Your task to perform on an android device: check android version Image 0: 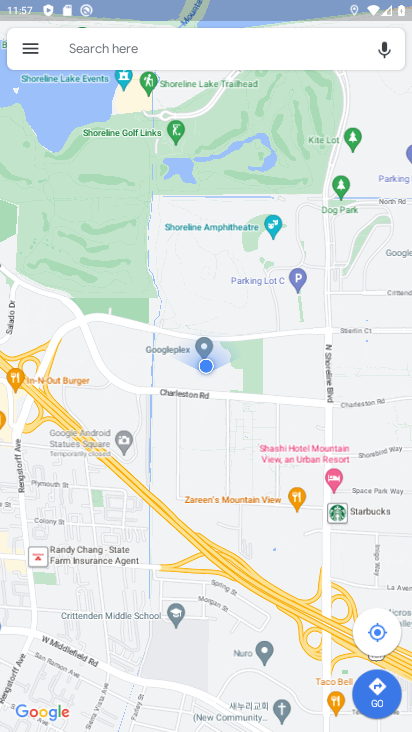
Step 0: press home button
Your task to perform on an android device: check android version Image 1: 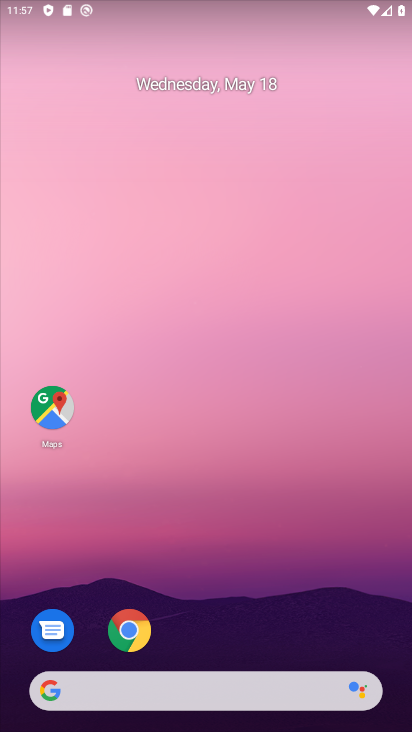
Step 1: drag from (288, 599) to (383, 298)
Your task to perform on an android device: check android version Image 2: 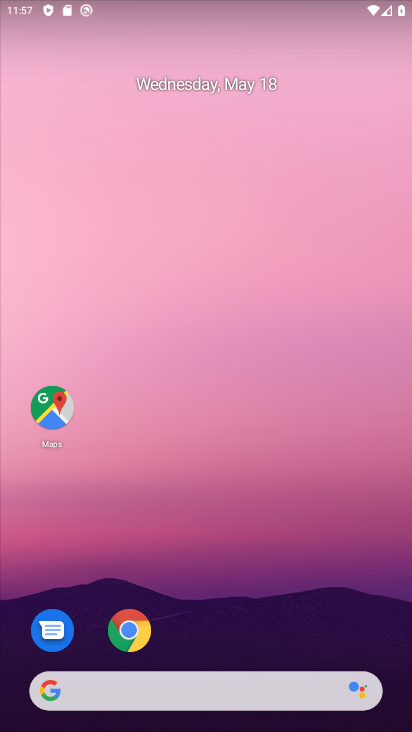
Step 2: drag from (365, 638) to (403, 161)
Your task to perform on an android device: check android version Image 3: 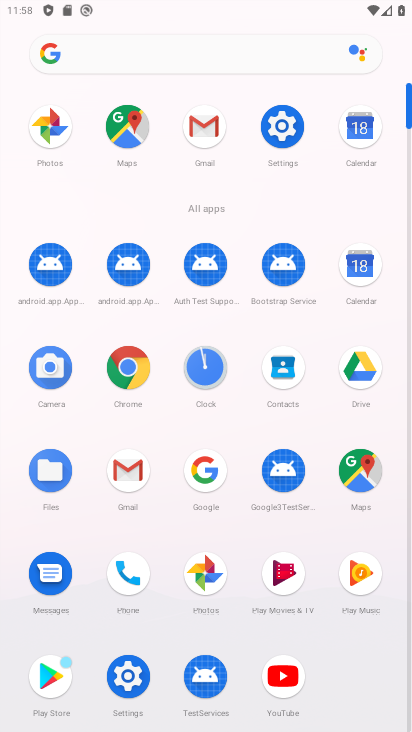
Step 3: click (127, 675)
Your task to perform on an android device: check android version Image 4: 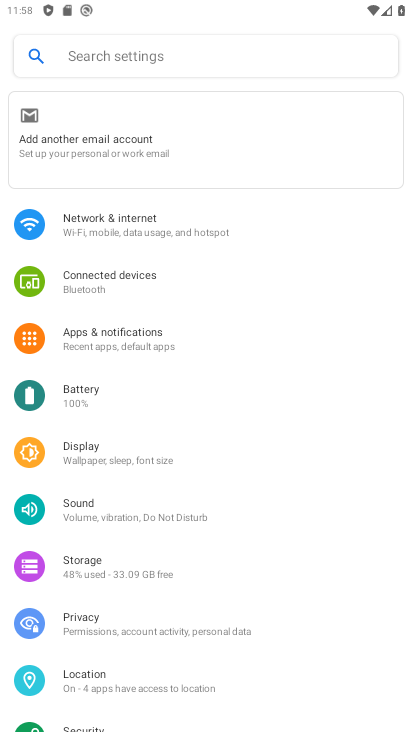
Step 4: drag from (201, 565) to (283, 307)
Your task to perform on an android device: check android version Image 5: 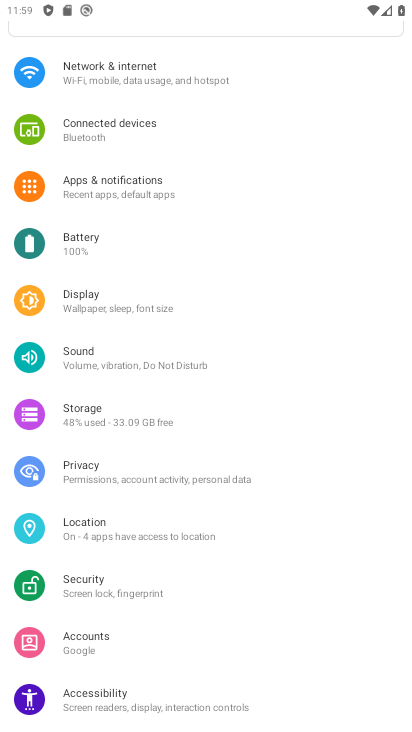
Step 5: drag from (138, 665) to (257, 227)
Your task to perform on an android device: check android version Image 6: 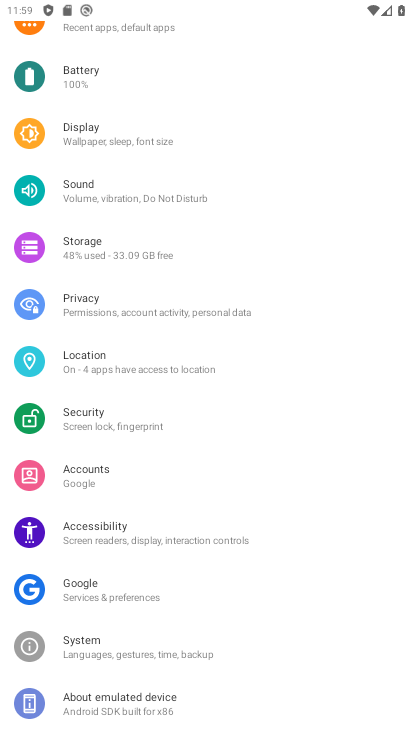
Step 6: drag from (108, 683) to (220, 248)
Your task to perform on an android device: check android version Image 7: 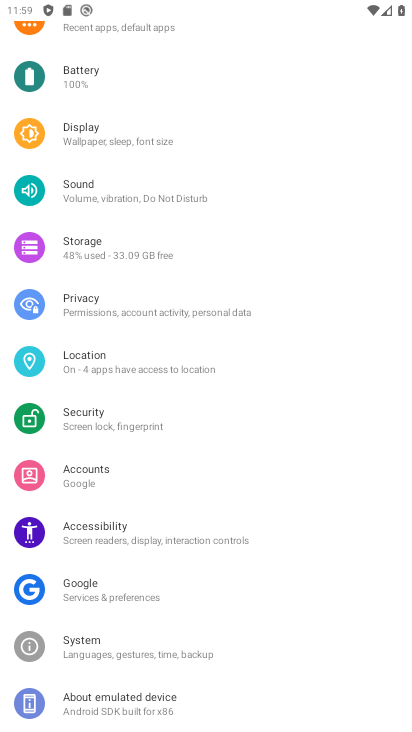
Step 7: click (120, 703)
Your task to perform on an android device: check android version Image 8: 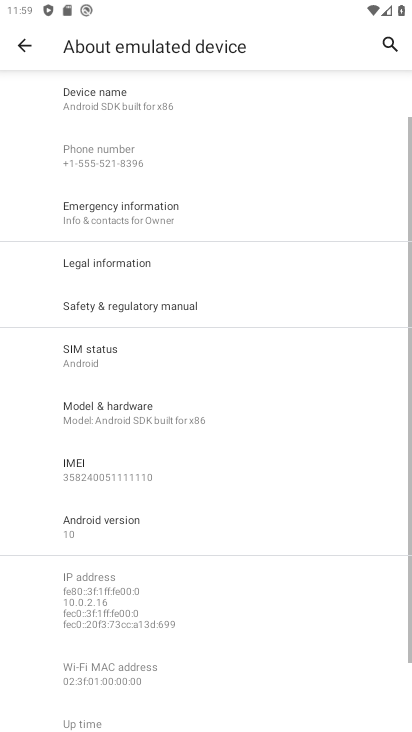
Step 8: click (130, 531)
Your task to perform on an android device: check android version Image 9: 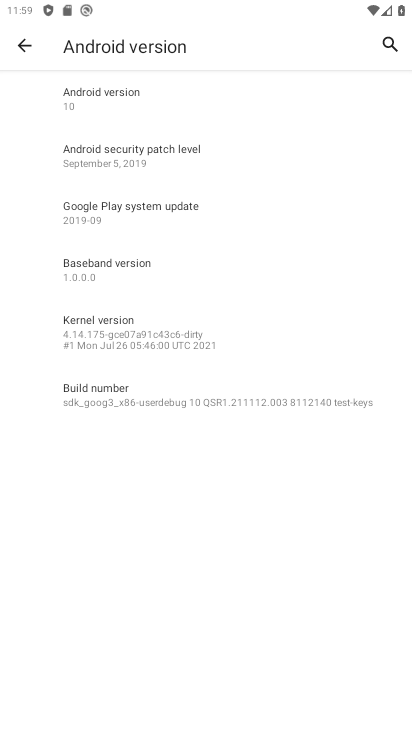
Step 9: task complete